Your task to perform on an android device: toggle notification dots Image 0: 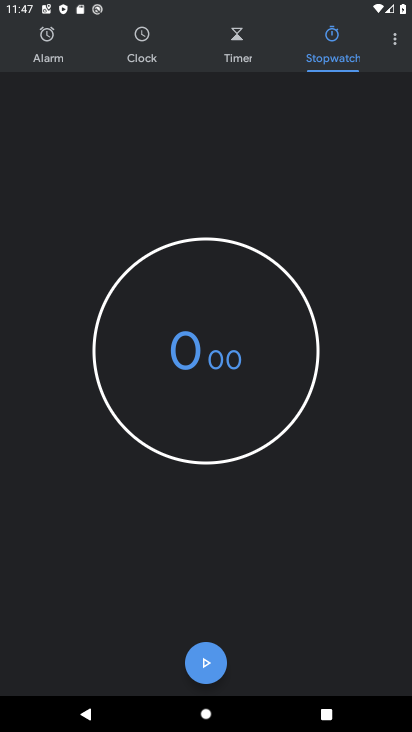
Step 0: press home button
Your task to perform on an android device: toggle notification dots Image 1: 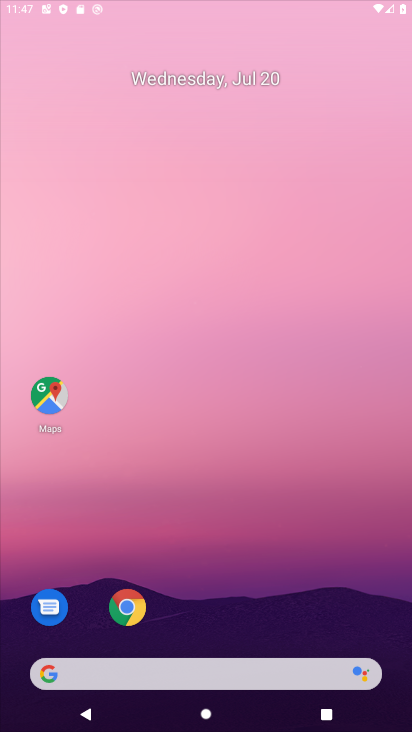
Step 1: drag from (357, 639) to (163, 63)
Your task to perform on an android device: toggle notification dots Image 2: 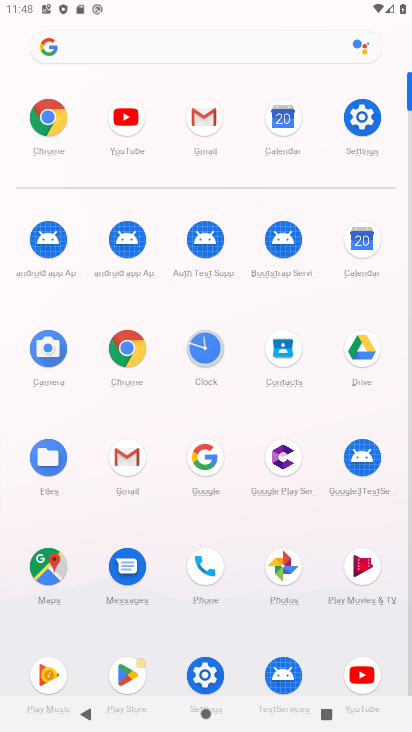
Step 2: click (203, 683)
Your task to perform on an android device: toggle notification dots Image 3: 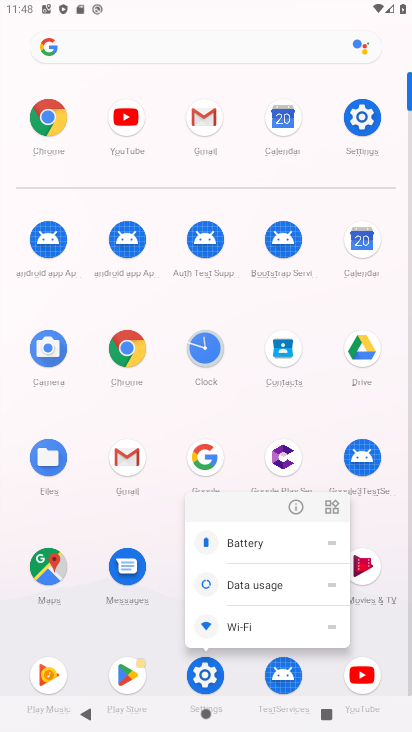
Step 3: click (198, 681)
Your task to perform on an android device: toggle notification dots Image 4: 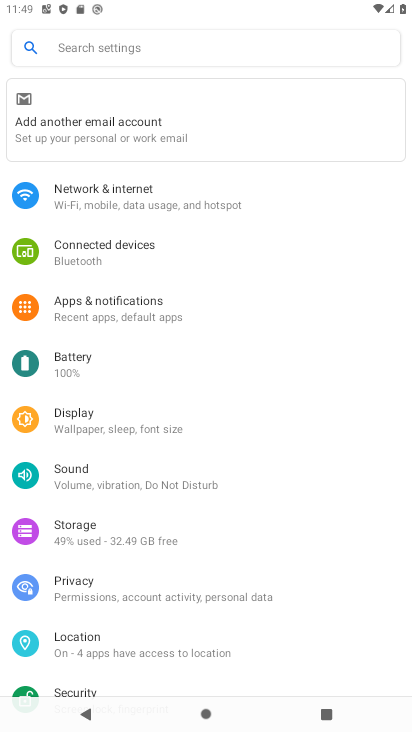
Step 4: click (90, 296)
Your task to perform on an android device: toggle notification dots Image 5: 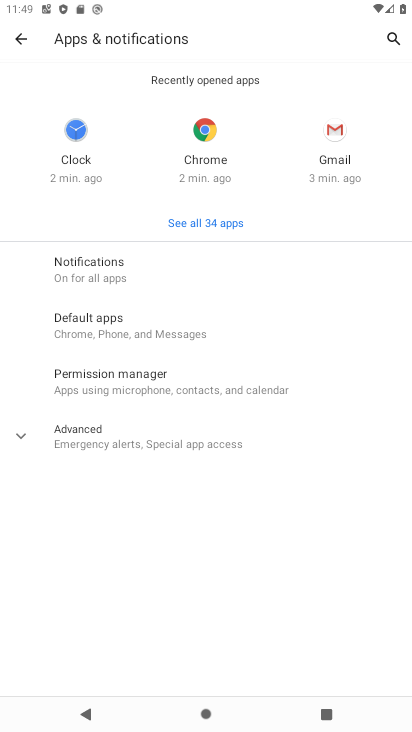
Step 5: click (108, 273)
Your task to perform on an android device: toggle notification dots Image 6: 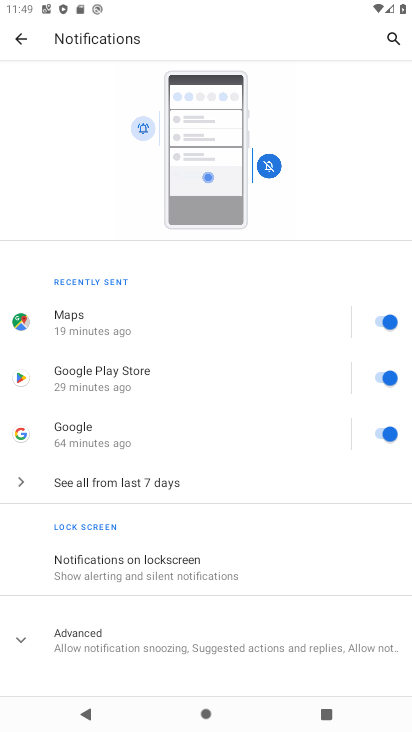
Step 6: click (96, 651)
Your task to perform on an android device: toggle notification dots Image 7: 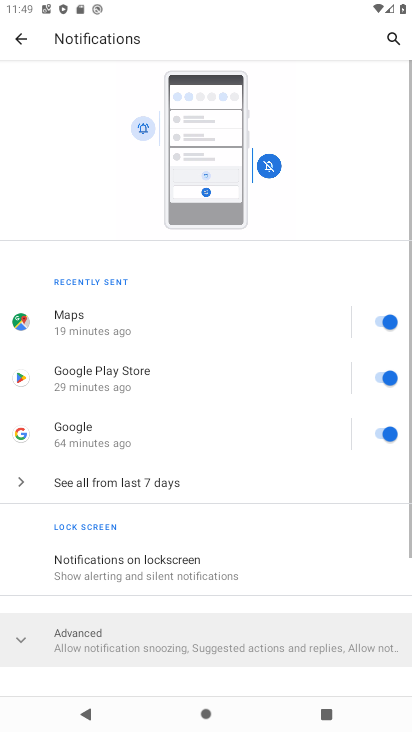
Step 7: drag from (118, 635) to (229, 61)
Your task to perform on an android device: toggle notification dots Image 8: 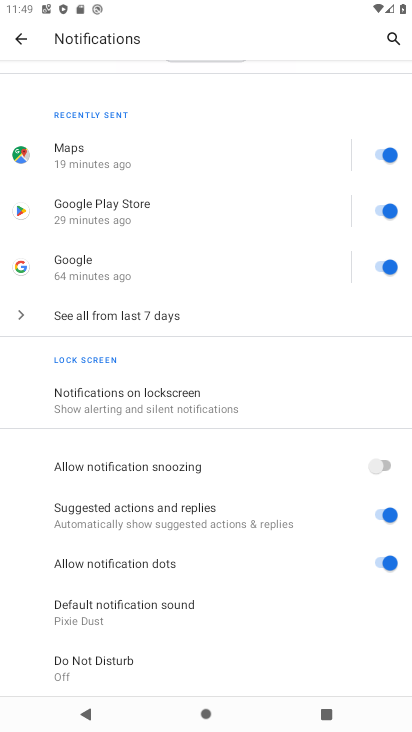
Step 8: click (179, 564)
Your task to perform on an android device: toggle notification dots Image 9: 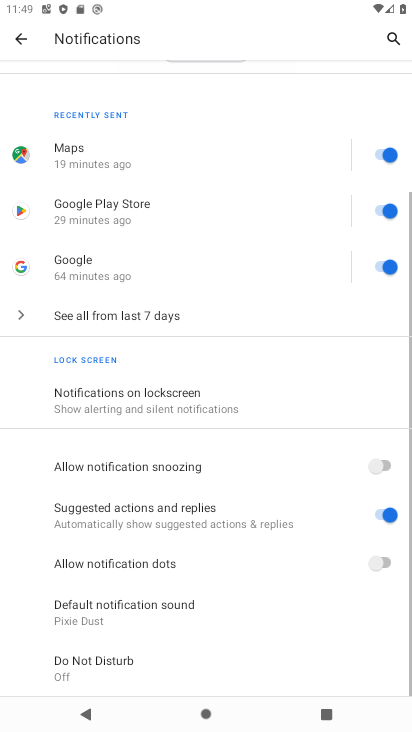
Step 9: task complete